Your task to perform on an android device: turn on showing notifications on the lock screen Image 0: 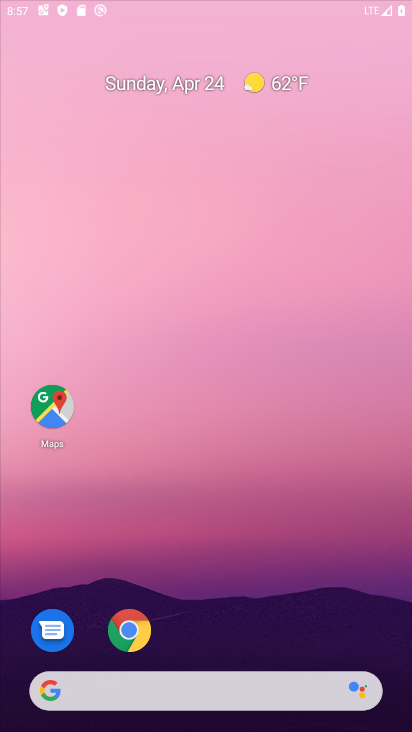
Step 0: drag from (329, 559) to (233, 26)
Your task to perform on an android device: turn on showing notifications on the lock screen Image 1: 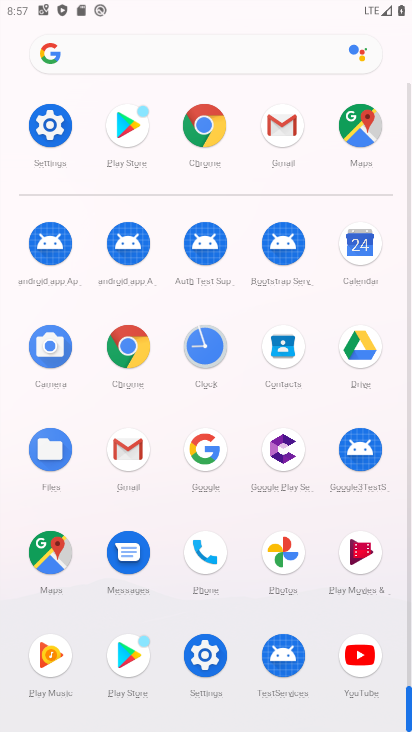
Step 1: drag from (20, 492) to (16, 301)
Your task to perform on an android device: turn on showing notifications on the lock screen Image 2: 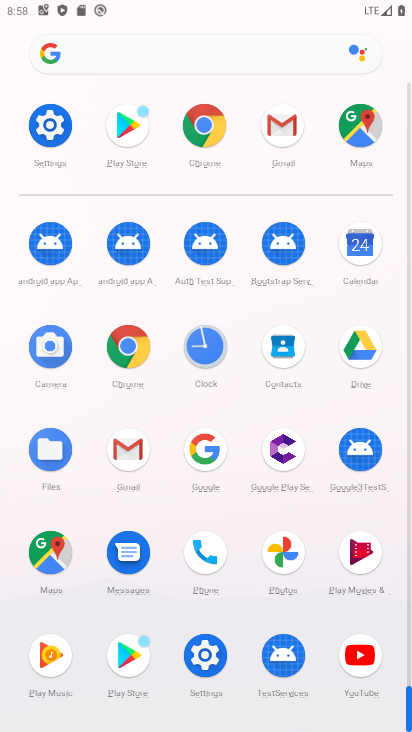
Step 2: click (204, 651)
Your task to perform on an android device: turn on showing notifications on the lock screen Image 3: 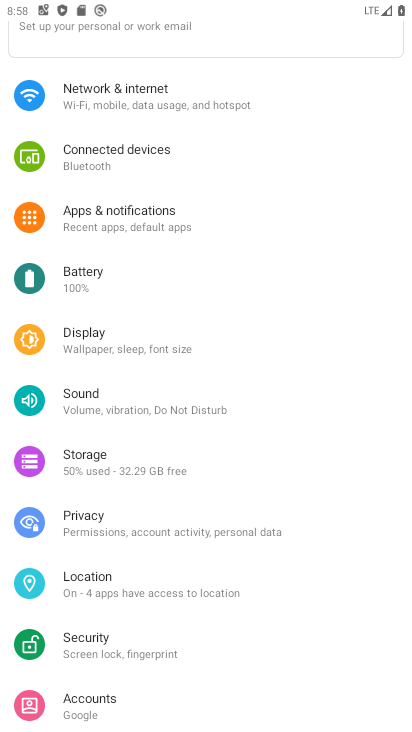
Step 3: click (130, 209)
Your task to perform on an android device: turn on showing notifications on the lock screen Image 4: 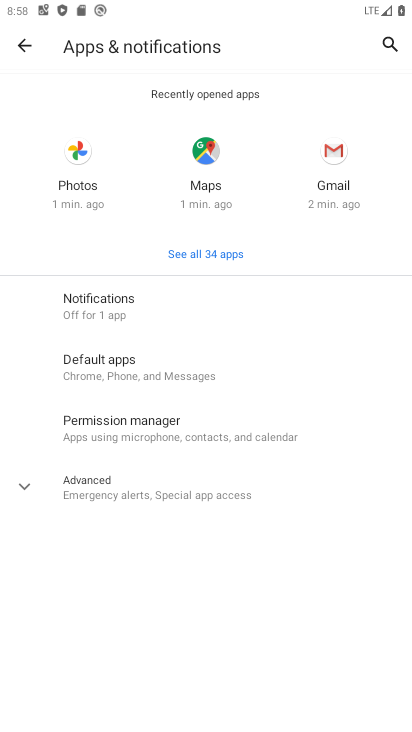
Step 4: click (10, 483)
Your task to perform on an android device: turn on showing notifications on the lock screen Image 5: 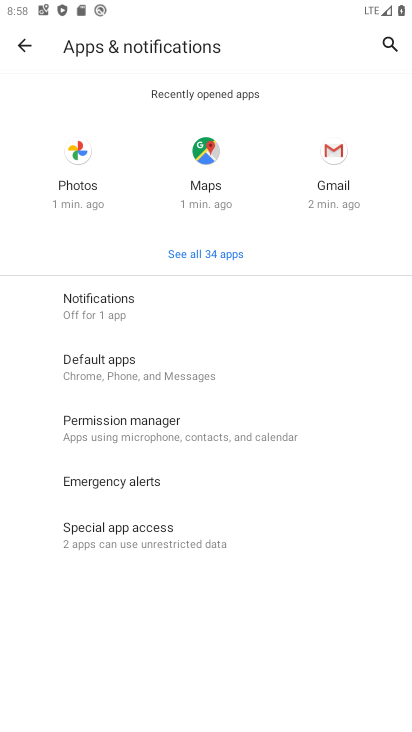
Step 5: click (139, 298)
Your task to perform on an android device: turn on showing notifications on the lock screen Image 6: 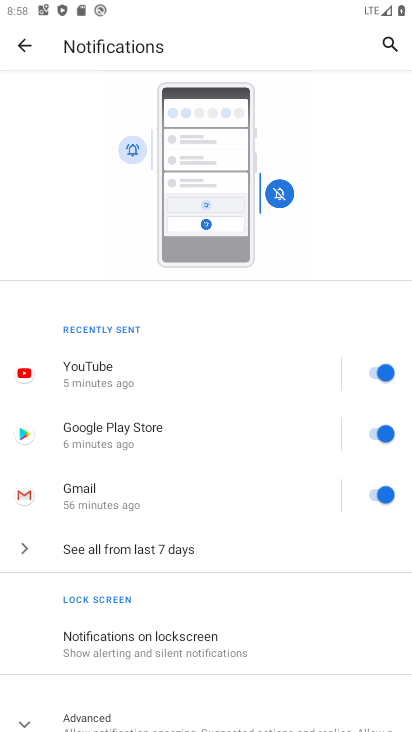
Step 6: click (142, 637)
Your task to perform on an android device: turn on showing notifications on the lock screen Image 7: 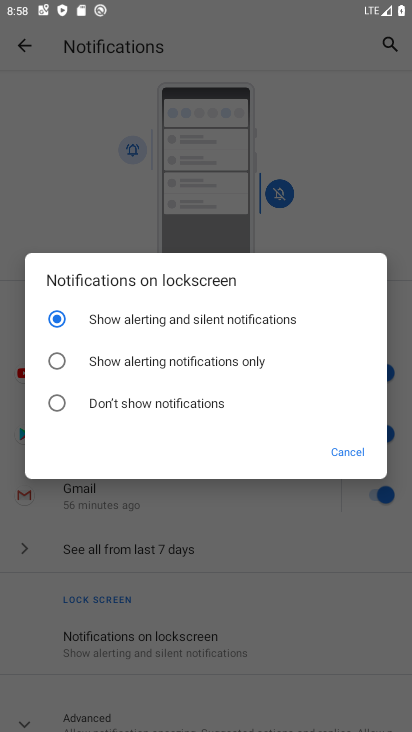
Step 7: click (121, 315)
Your task to perform on an android device: turn on showing notifications on the lock screen Image 8: 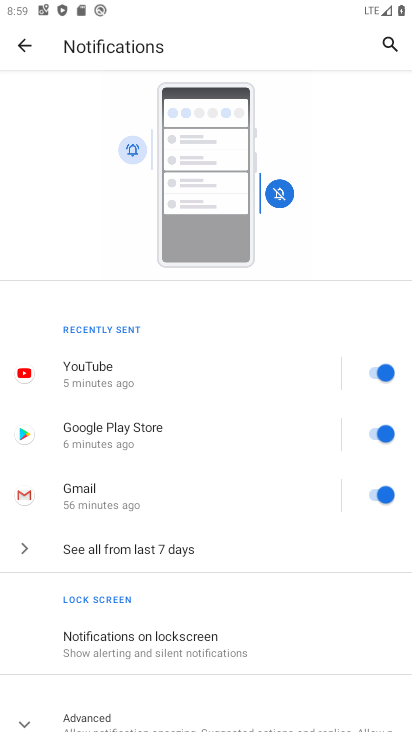
Step 8: task complete